Your task to perform on an android device: Show me popular games on the Play Store Image 0: 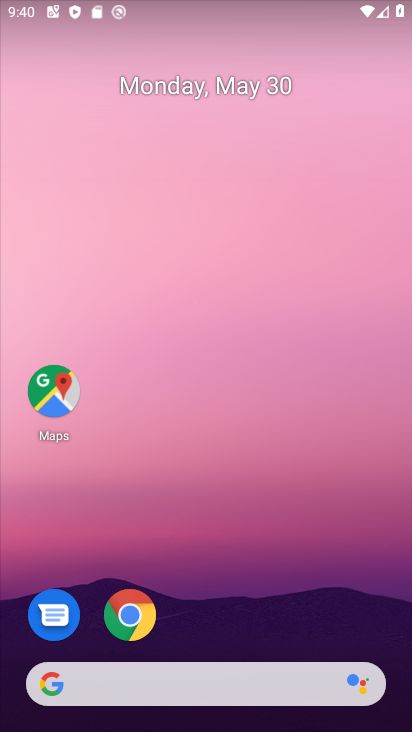
Step 0: drag from (217, 248) to (154, 3)
Your task to perform on an android device: Show me popular games on the Play Store Image 1: 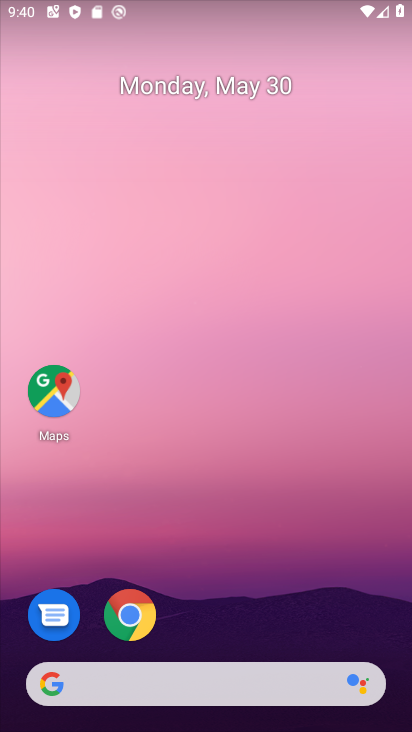
Step 1: drag from (268, 481) to (207, 7)
Your task to perform on an android device: Show me popular games on the Play Store Image 2: 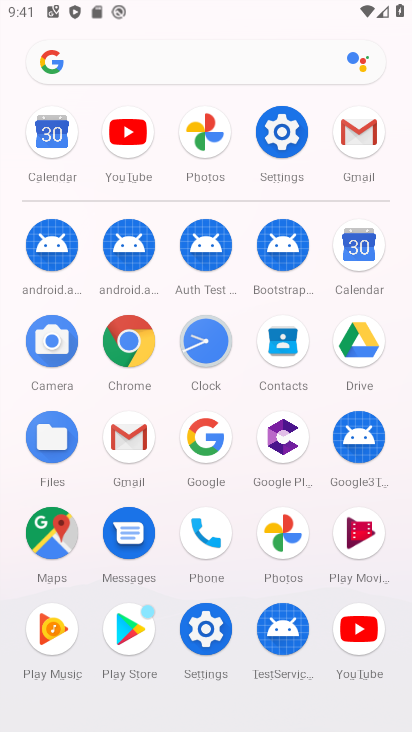
Step 2: click (141, 637)
Your task to perform on an android device: Show me popular games on the Play Store Image 3: 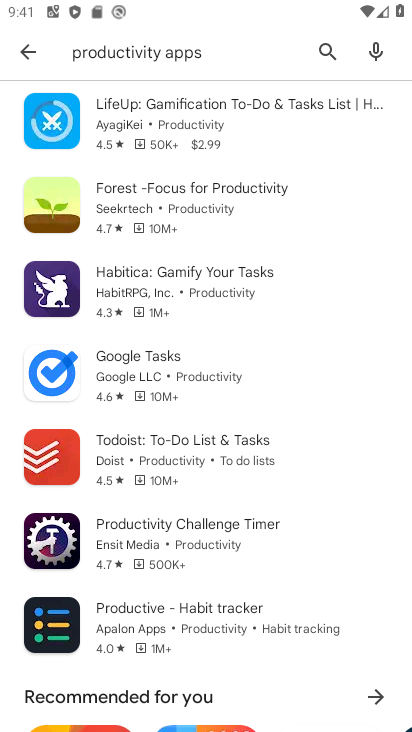
Step 3: click (28, 51)
Your task to perform on an android device: Show me popular games on the Play Store Image 4: 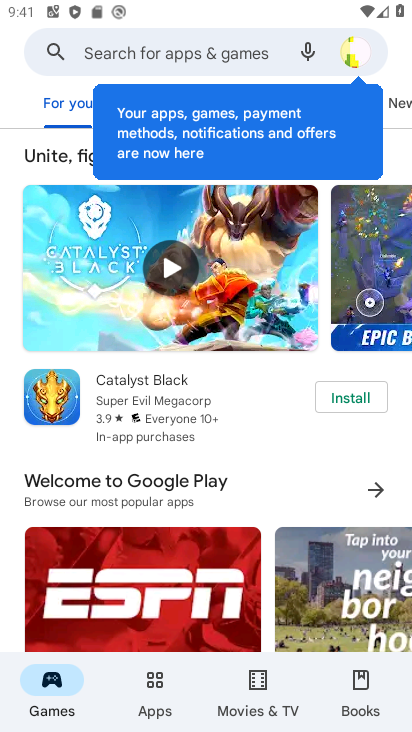
Step 4: click (11, 104)
Your task to perform on an android device: Show me popular games on the Play Store Image 5: 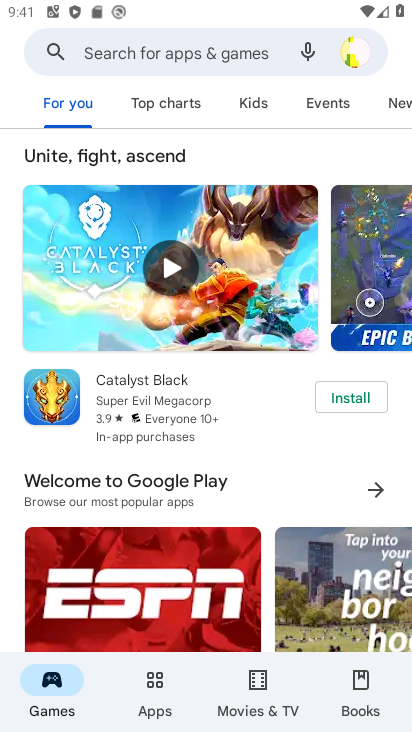
Step 5: click (159, 105)
Your task to perform on an android device: Show me popular games on the Play Store Image 6: 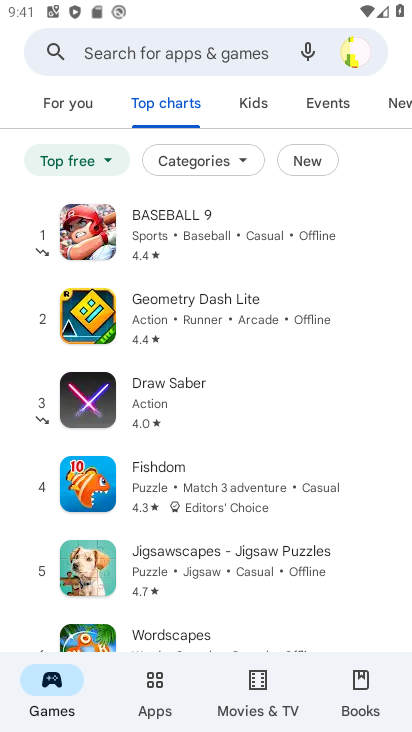
Step 6: task complete